Your task to perform on an android device: change text size in settings app Image 0: 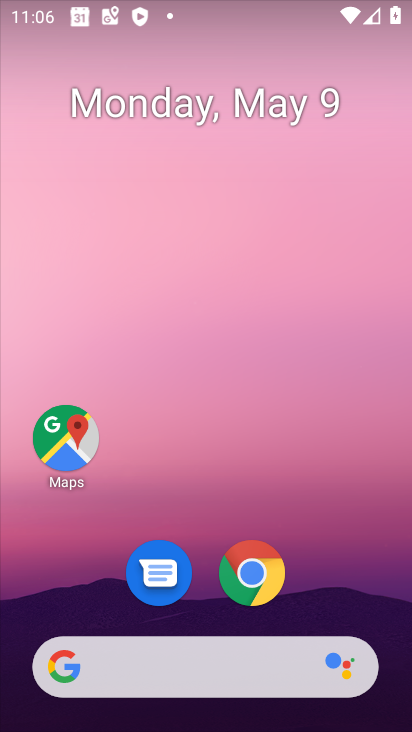
Step 0: drag from (186, 622) to (250, 232)
Your task to perform on an android device: change text size in settings app Image 1: 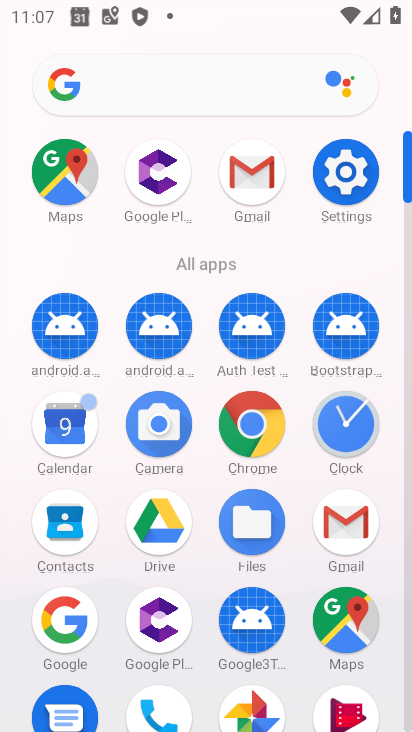
Step 1: click (350, 170)
Your task to perform on an android device: change text size in settings app Image 2: 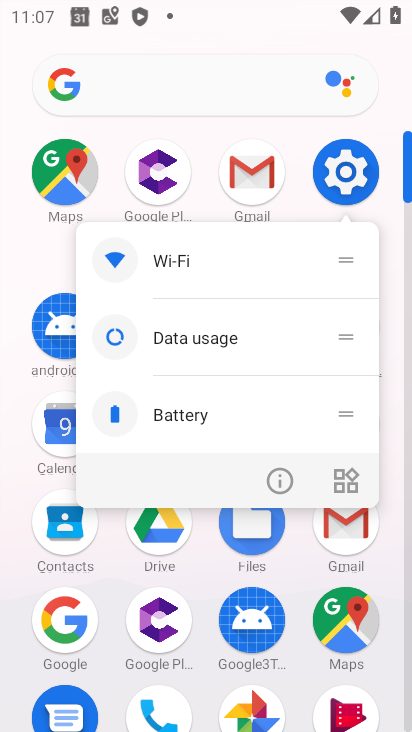
Step 2: click (268, 495)
Your task to perform on an android device: change text size in settings app Image 3: 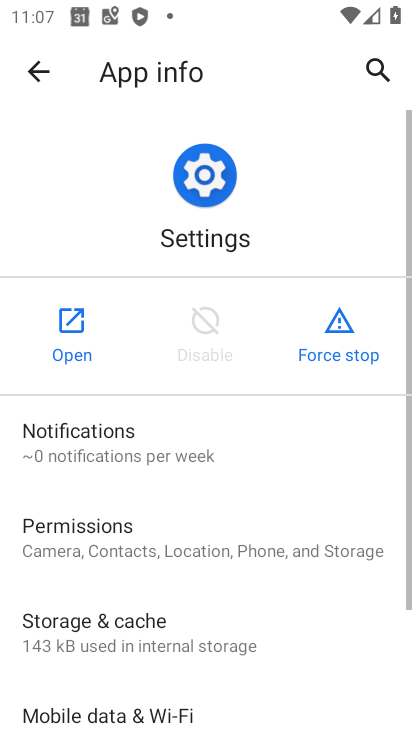
Step 3: click (66, 333)
Your task to perform on an android device: change text size in settings app Image 4: 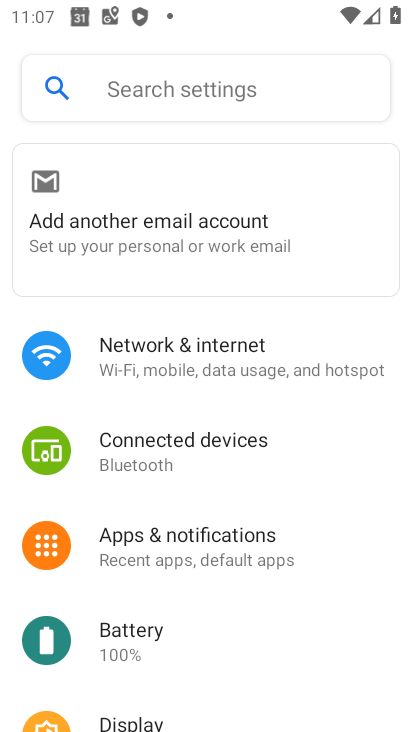
Step 4: drag from (239, 670) to (337, 162)
Your task to perform on an android device: change text size in settings app Image 5: 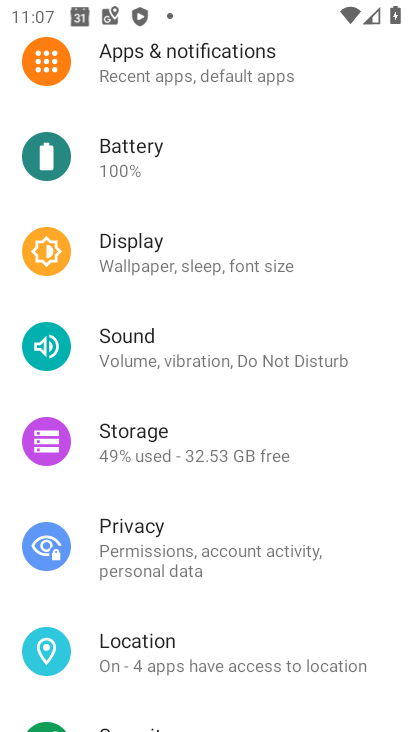
Step 5: drag from (217, 514) to (287, 134)
Your task to perform on an android device: change text size in settings app Image 6: 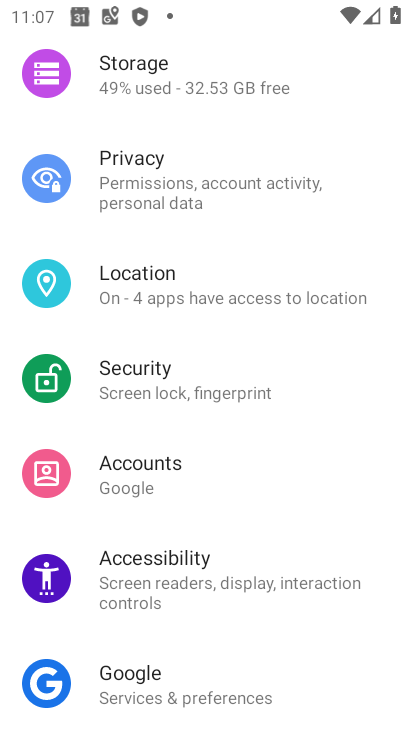
Step 6: drag from (249, 170) to (223, 717)
Your task to perform on an android device: change text size in settings app Image 7: 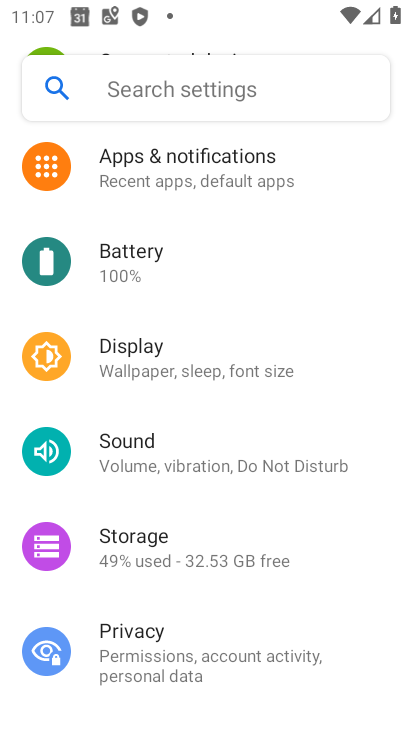
Step 7: click (205, 367)
Your task to perform on an android device: change text size in settings app Image 8: 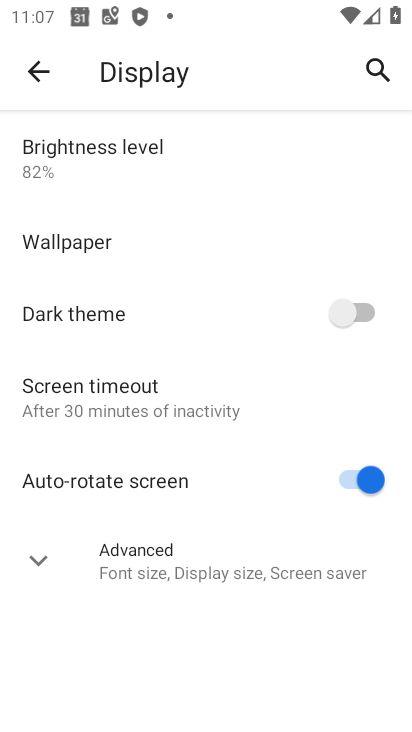
Step 8: drag from (211, 509) to (255, 251)
Your task to perform on an android device: change text size in settings app Image 9: 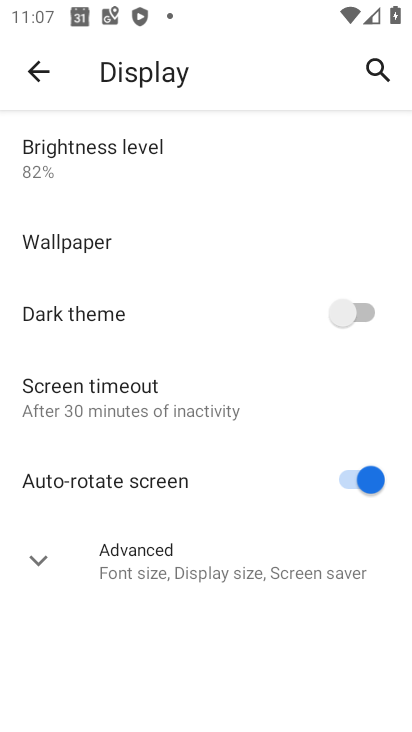
Step 9: click (175, 566)
Your task to perform on an android device: change text size in settings app Image 10: 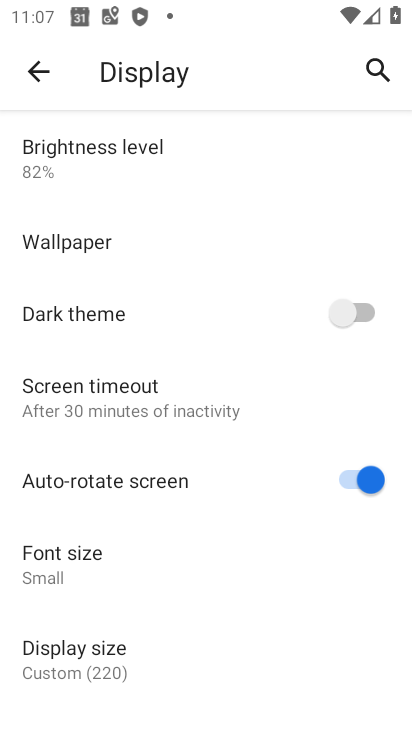
Step 10: click (168, 586)
Your task to perform on an android device: change text size in settings app Image 11: 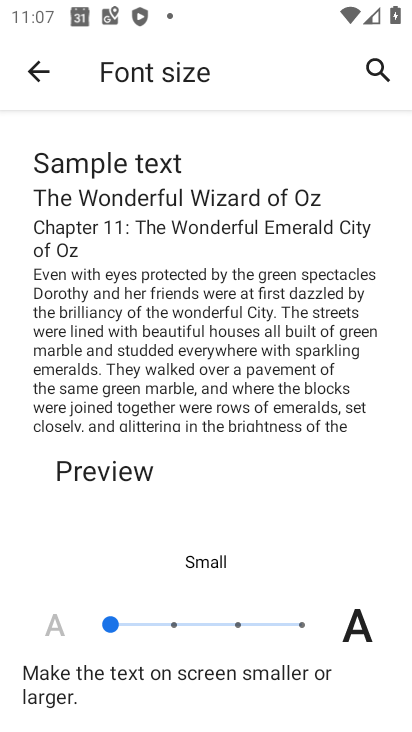
Step 11: click (165, 621)
Your task to perform on an android device: change text size in settings app Image 12: 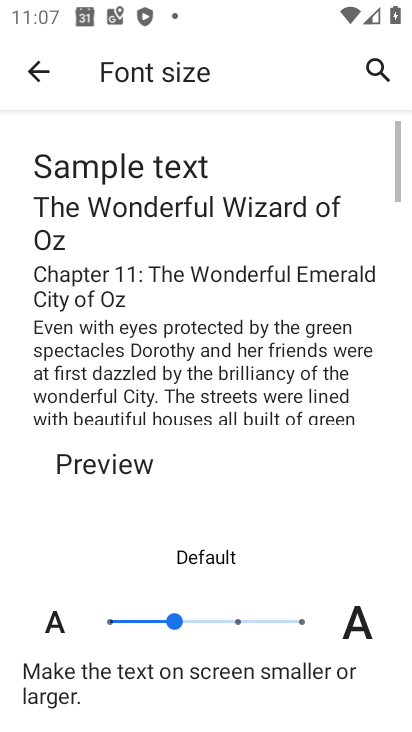
Step 12: task complete